Your task to perform on an android device: install app "Roku - Official Remote Control" Image 0: 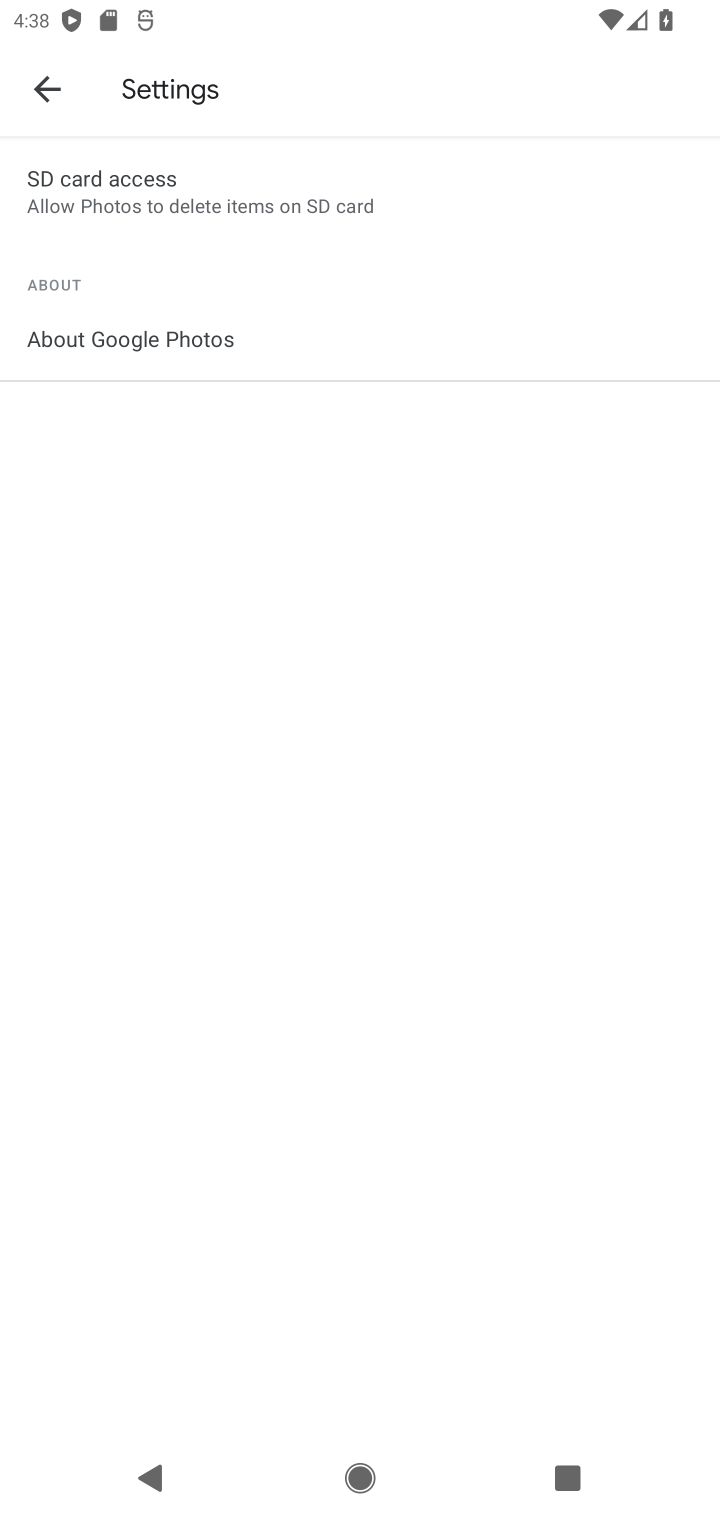
Step 0: press home button
Your task to perform on an android device: install app "Roku - Official Remote Control" Image 1: 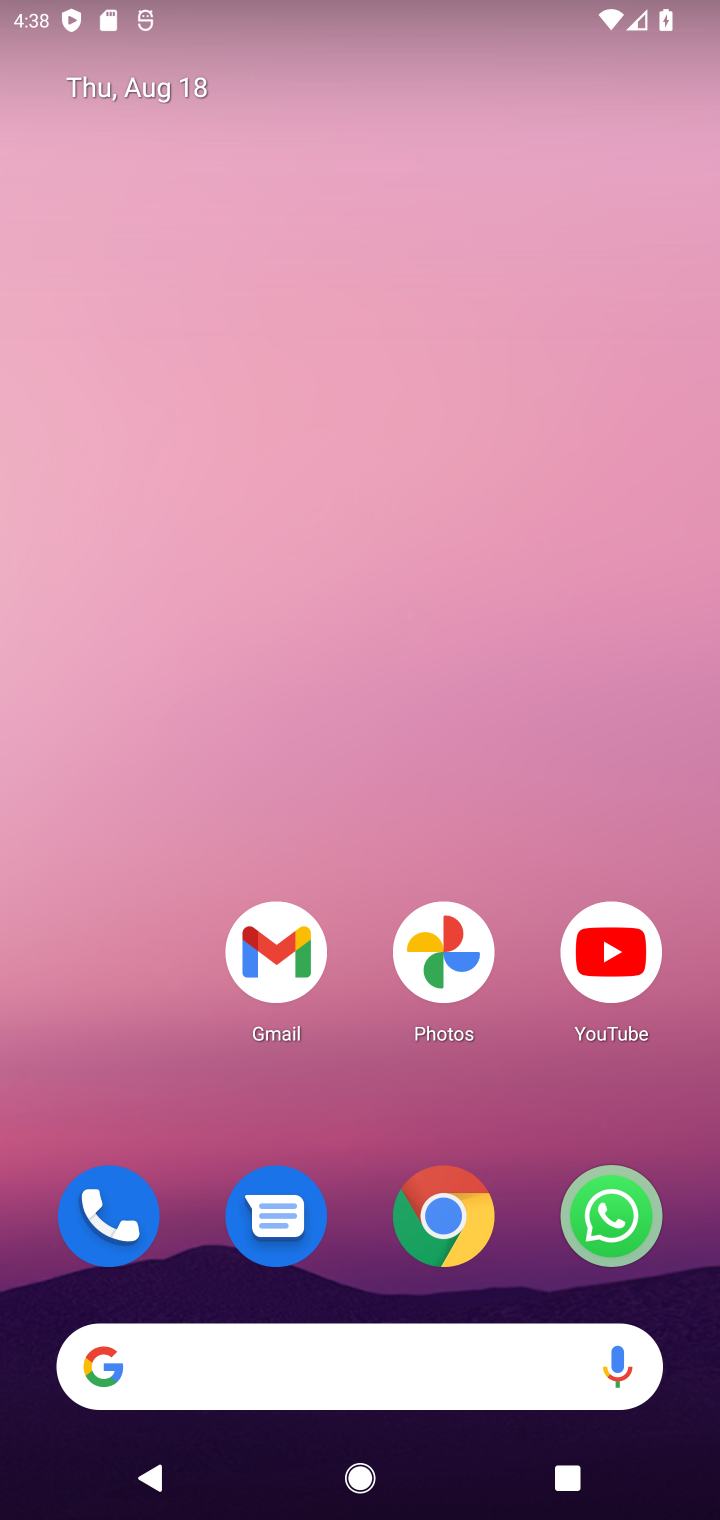
Step 1: drag from (366, 1080) to (409, 355)
Your task to perform on an android device: install app "Roku - Official Remote Control" Image 2: 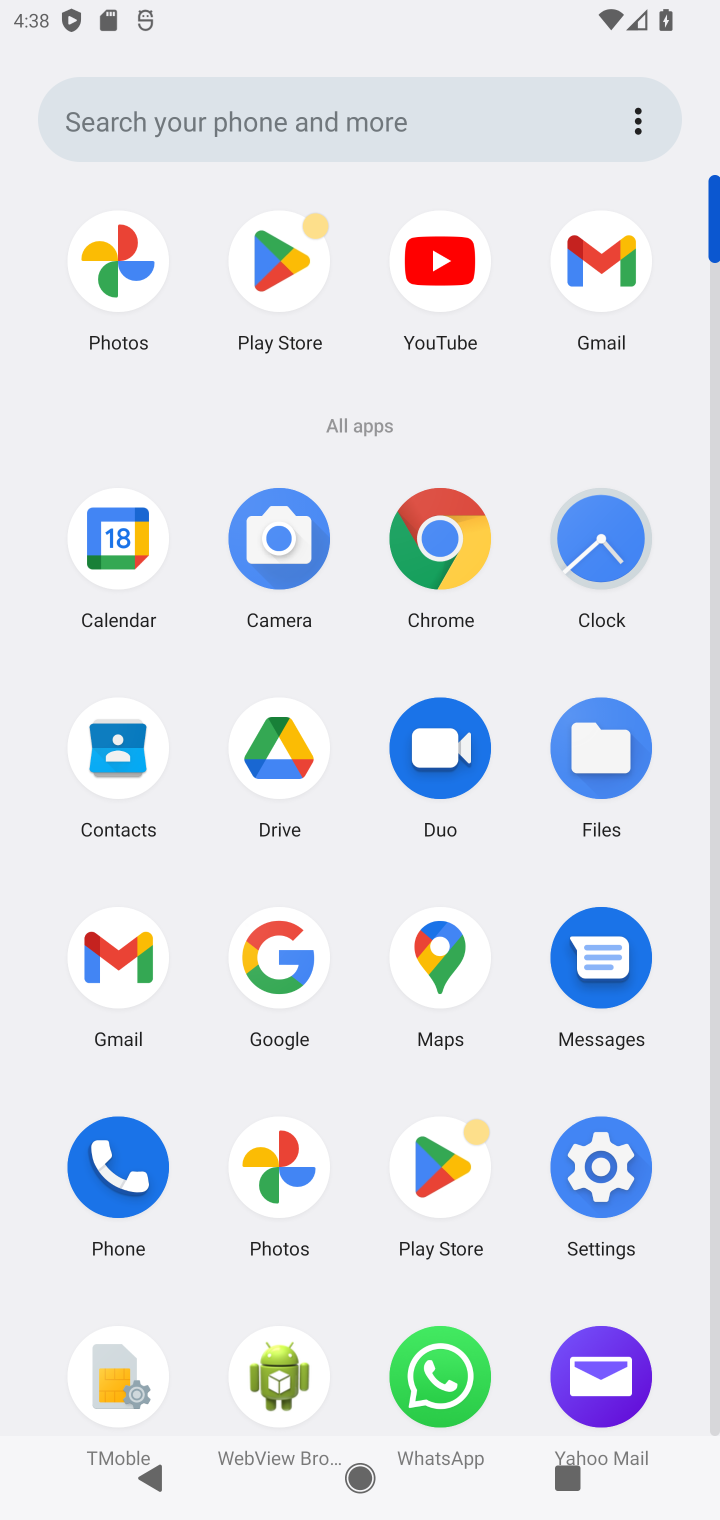
Step 2: click (285, 263)
Your task to perform on an android device: install app "Roku - Official Remote Control" Image 3: 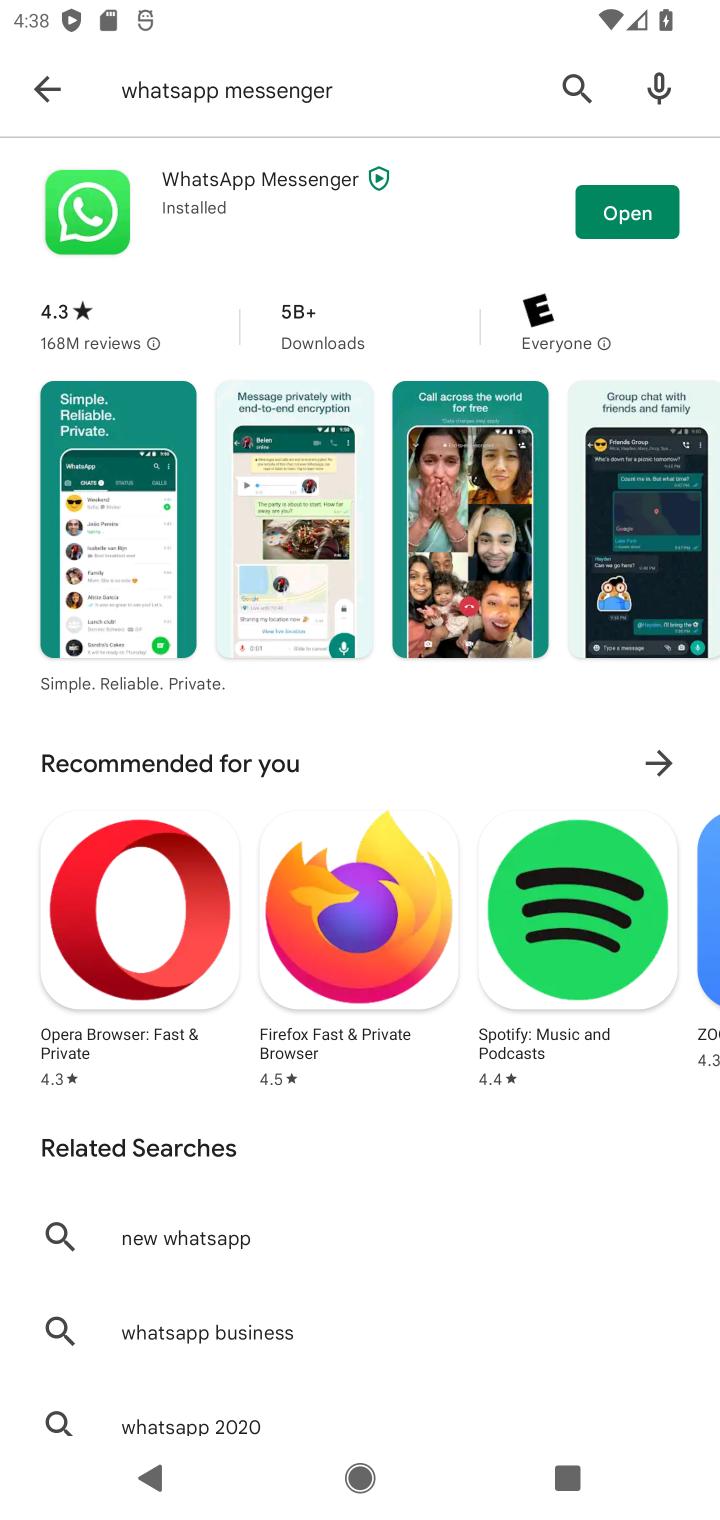
Step 3: click (596, 86)
Your task to perform on an android device: install app "Roku - Official Remote Control" Image 4: 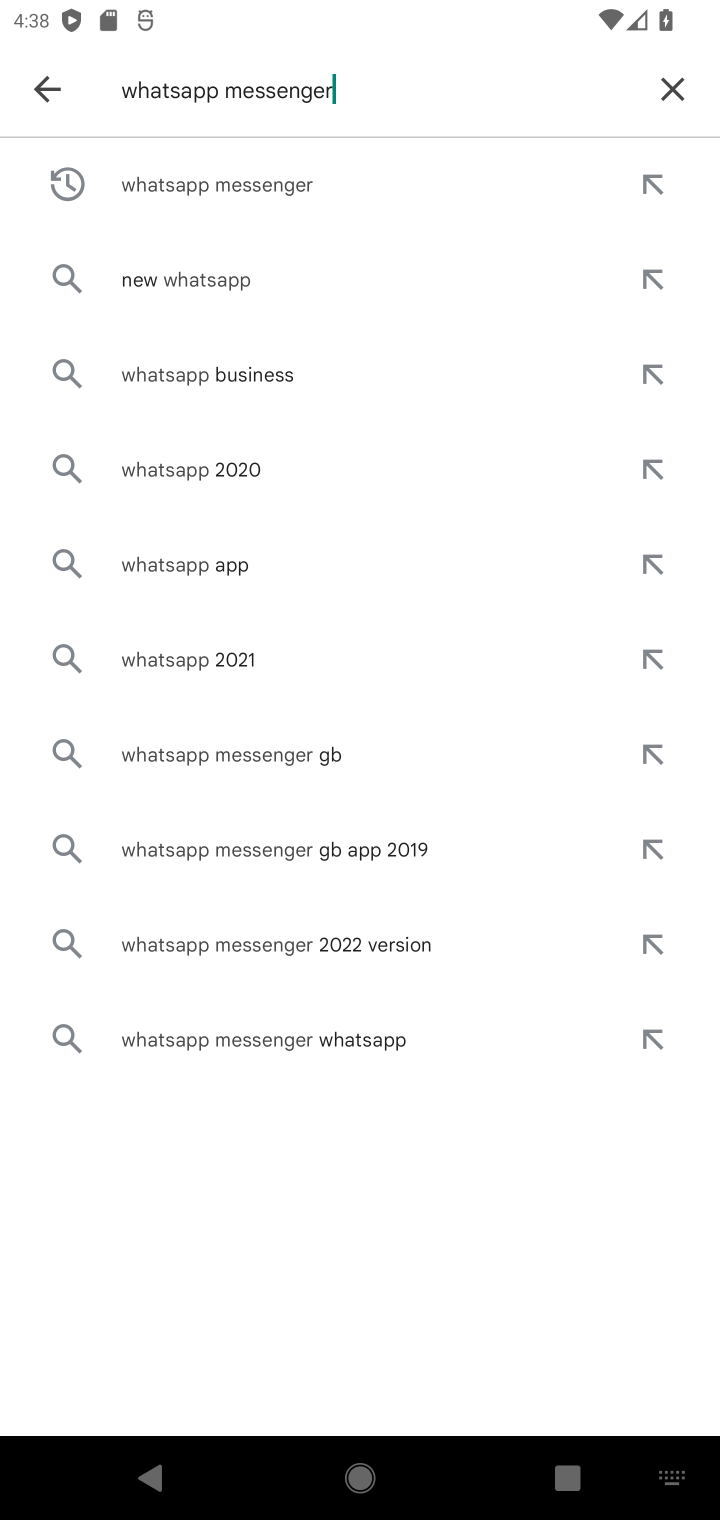
Step 4: click (675, 87)
Your task to perform on an android device: install app "Roku - Official Remote Control" Image 5: 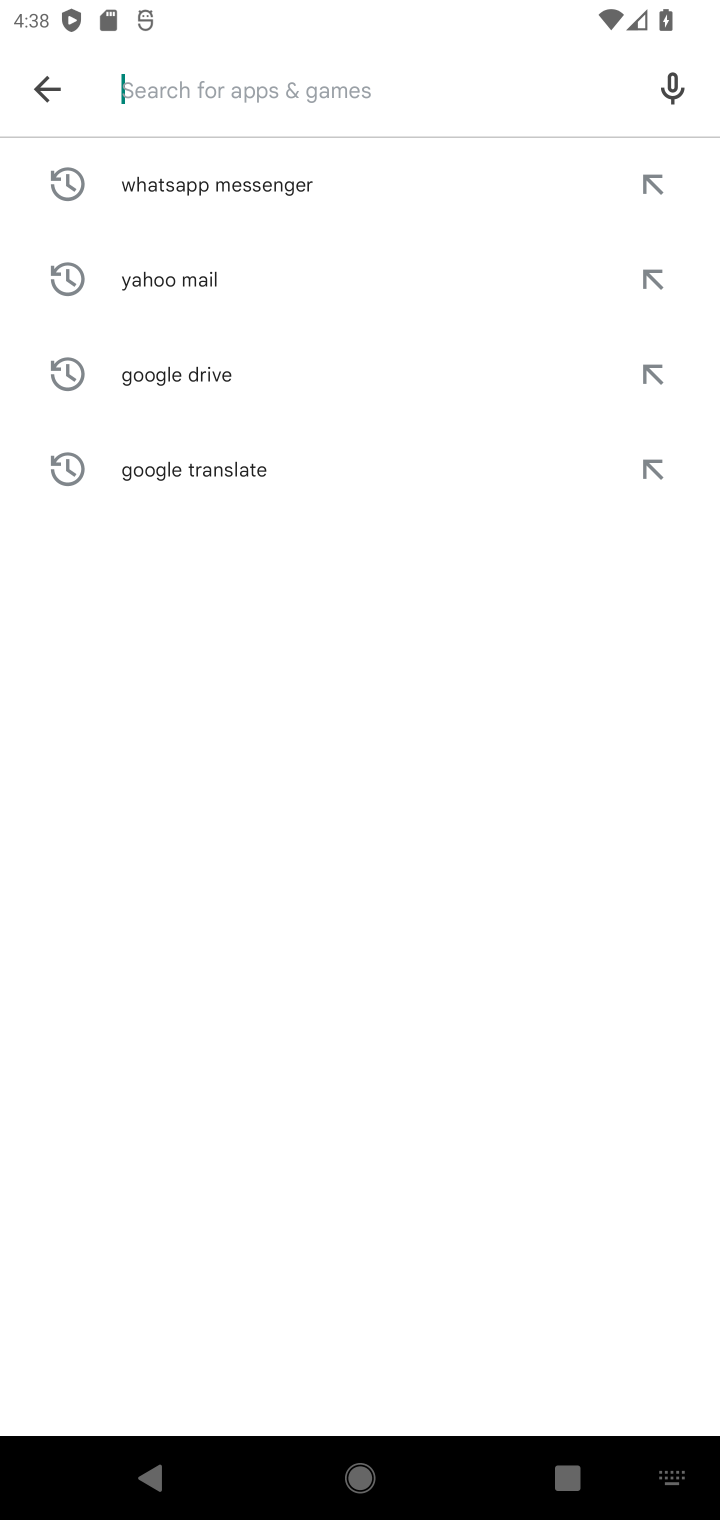
Step 5: type "Roku - Official Remote Control"
Your task to perform on an android device: install app "Roku - Official Remote Control" Image 6: 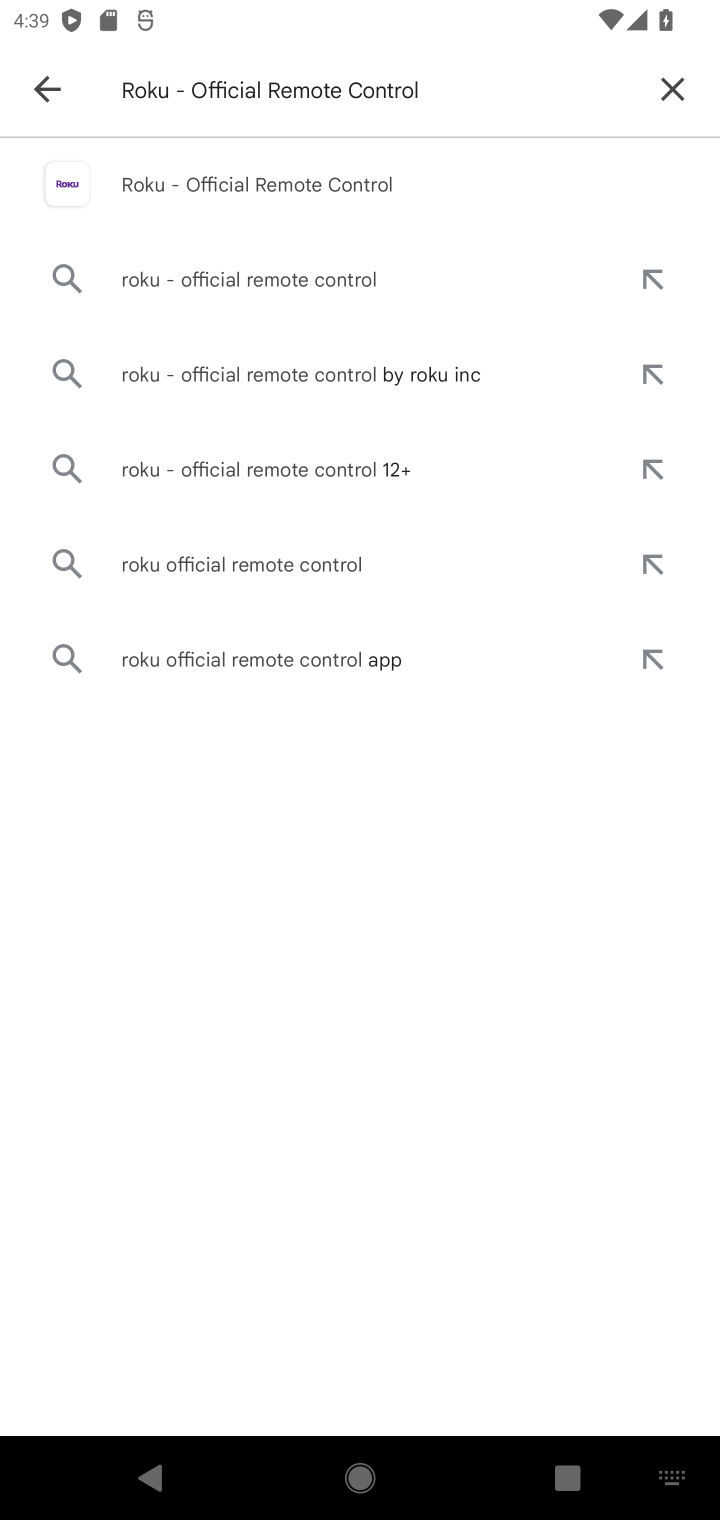
Step 6: click (283, 188)
Your task to perform on an android device: install app "Roku - Official Remote Control" Image 7: 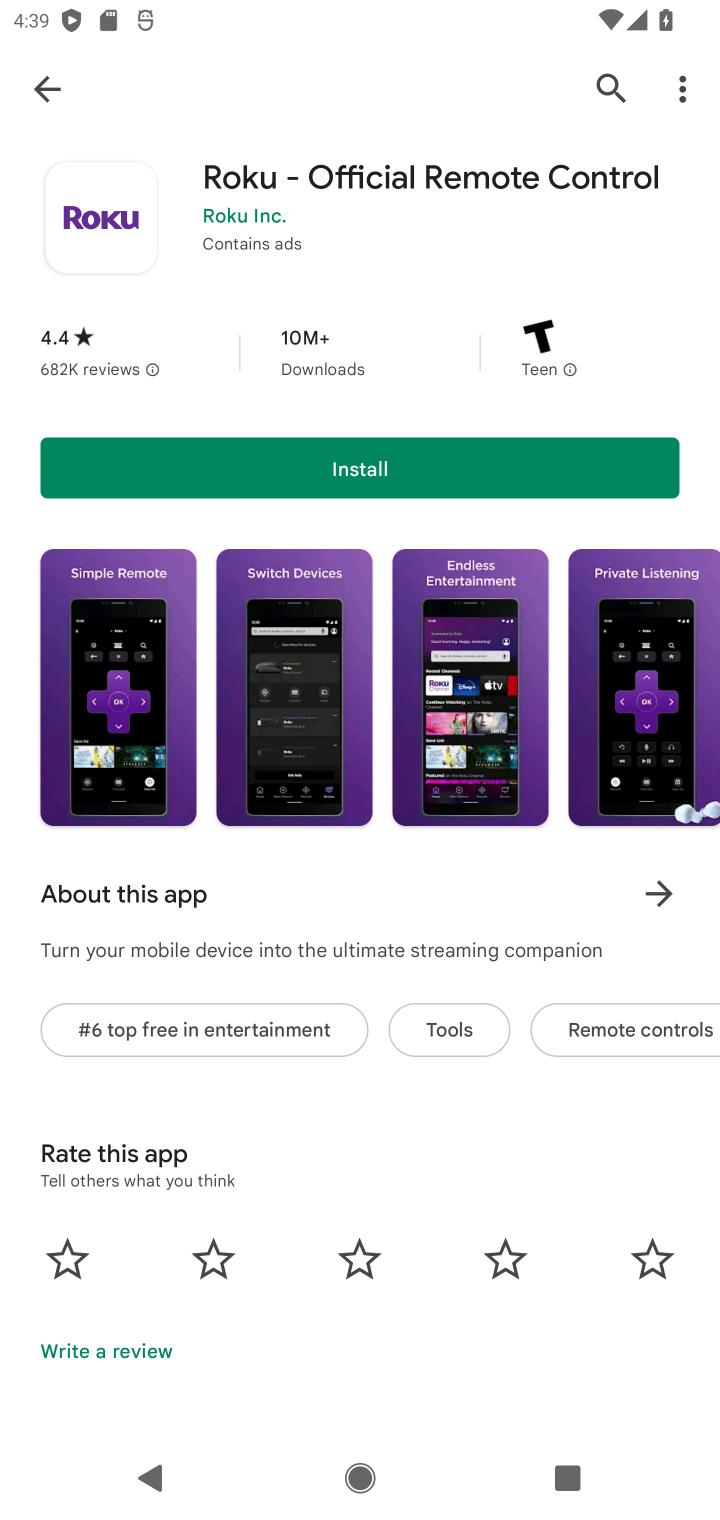
Step 7: click (455, 477)
Your task to perform on an android device: install app "Roku - Official Remote Control" Image 8: 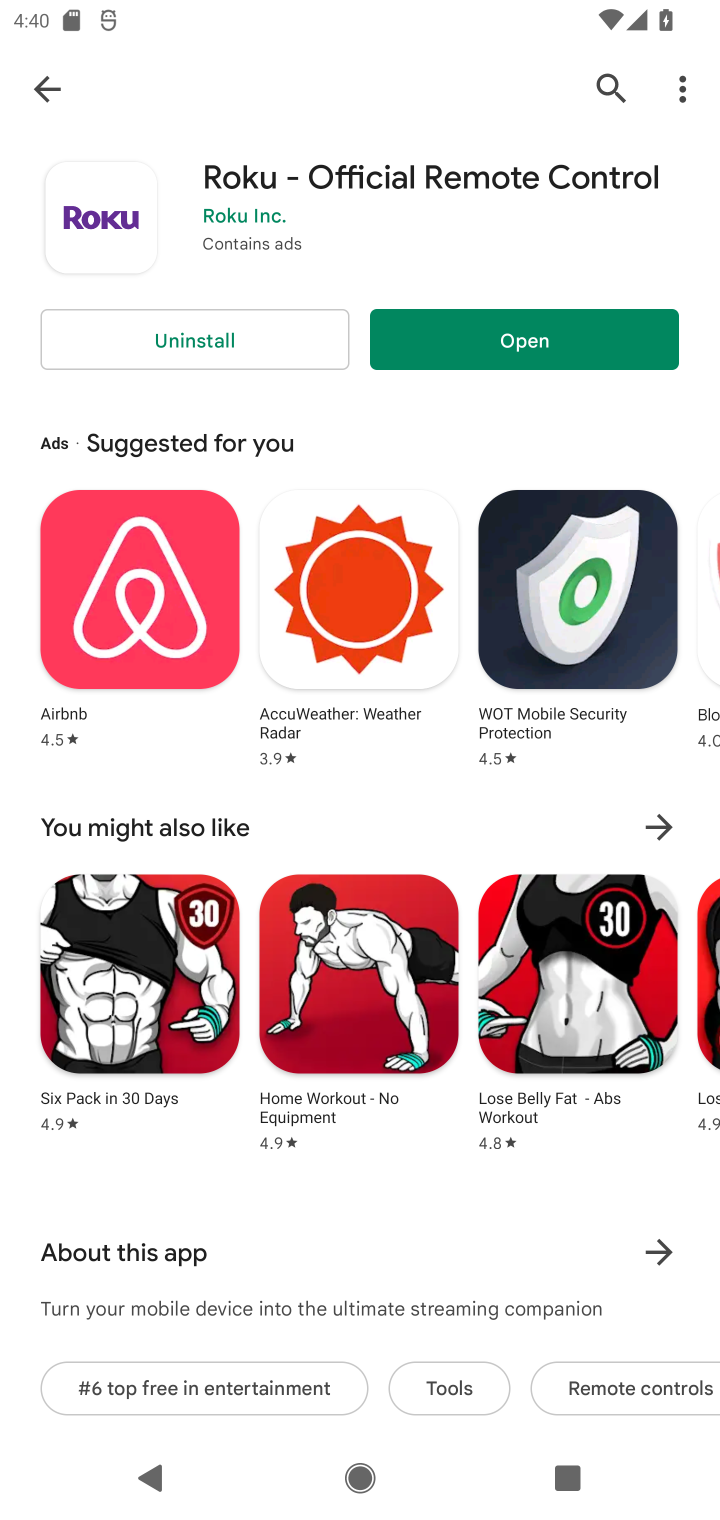
Step 8: task complete